Your task to perform on an android device: Open Google Chrome and click the shortcut for Amazon.com Image 0: 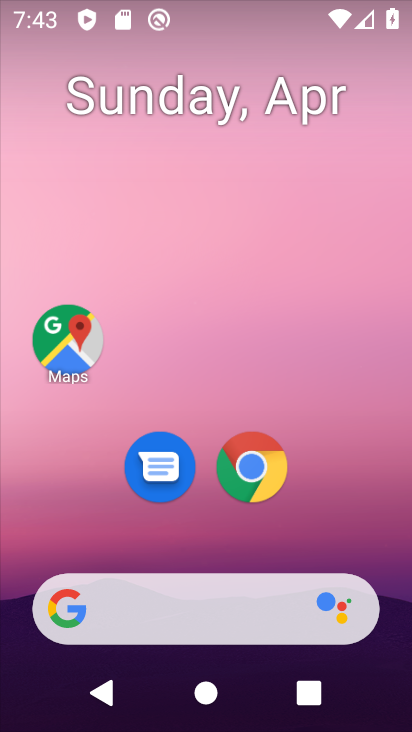
Step 0: click (256, 465)
Your task to perform on an android device: Open Google Chrome and click the shortcut for Amazon.com Image 1: 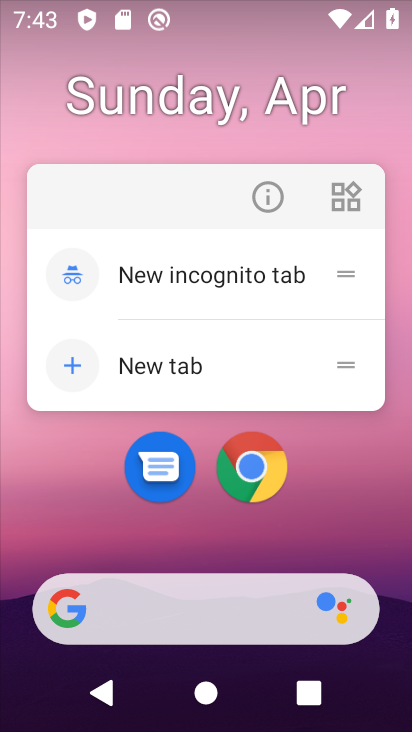
Step 1: click (256, 465)
Your task to perform on an android device: Open Google Chrome and click the shortcut for Amazon.com Image 2: 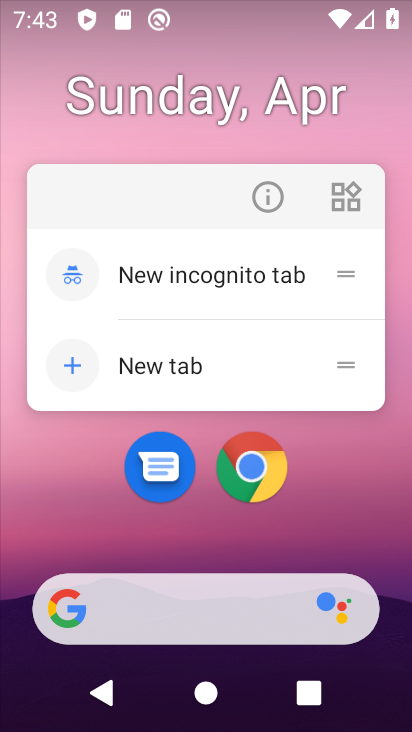
Step 2: click (256, 465)
Your task to perform on an android device: Open Google Chrome and click the shortcut for Amazon.com Image 3: 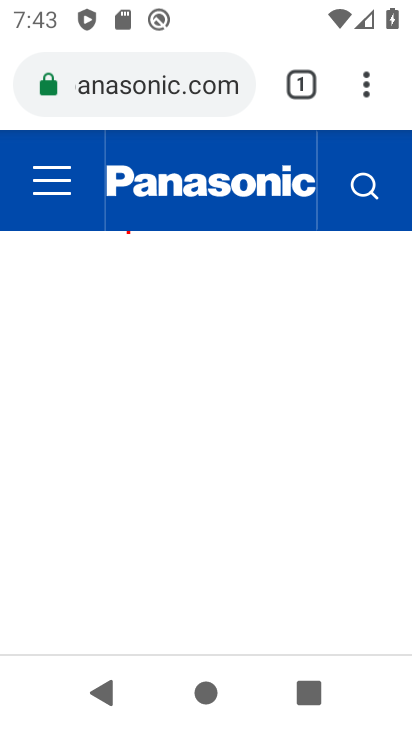
Step 3: click (363, 82)
Your task to perform on an android device: Open Google Chrome and click the shortcut for Amazon.com Image 4: 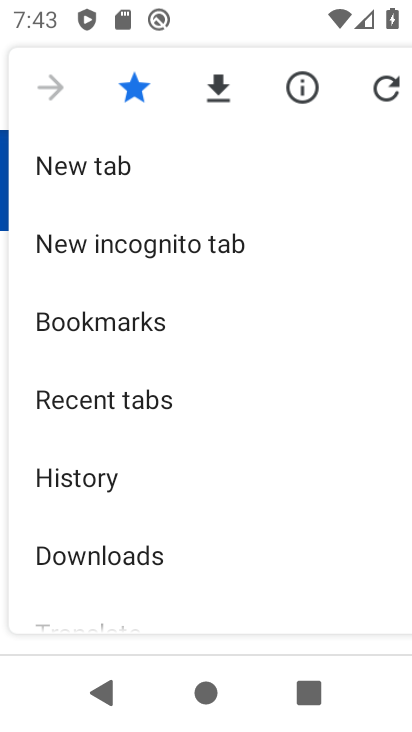
Step 4: click (106, 167)
Your task to perform on an android device: Open Google Chrome and click the shortcut for Amazon.com Image 5: 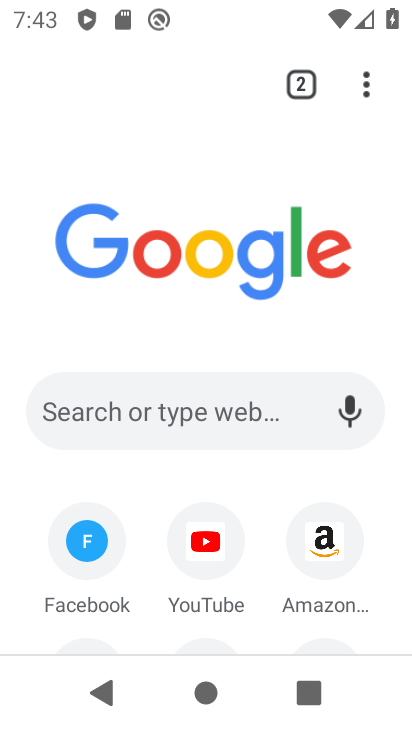
Step 5: click (314, 528)
Your task to perform on an android device: Open Google Chrome and click the shortcut for Amazon.com Image 6: 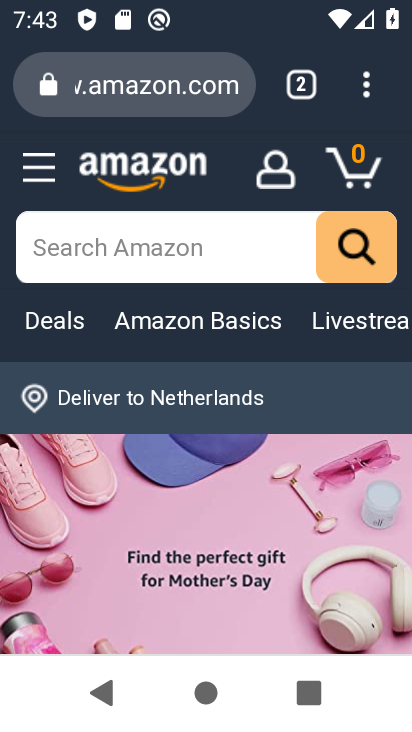
Step 6: task complete